Your task to perform on an android device: set default search engine in the chrome app Image 0: 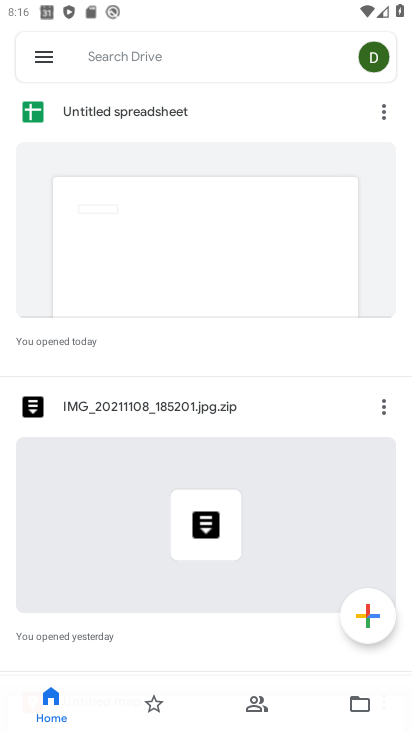
Step 0: drag from (219, 592) to (228, 326)
Your task to perform on an android device: set default search engine in the chrome app Image 1: 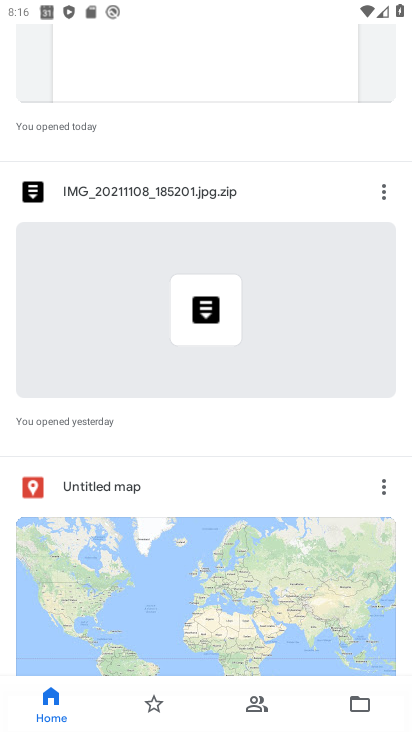
Step 1: press home button
Your task to perform on an android device: set default search engine in the chrome app Image 2: 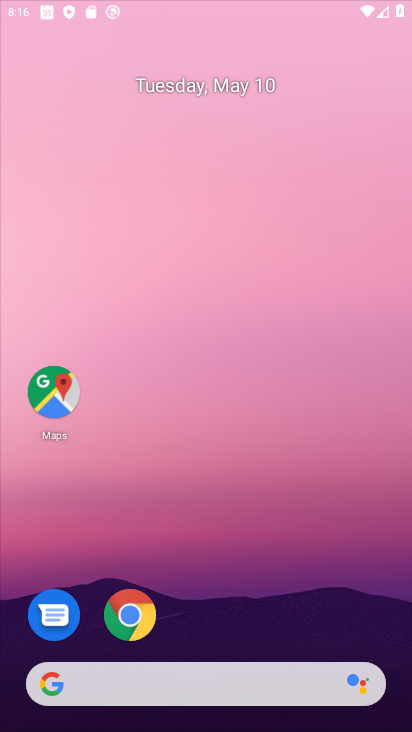
Step 2: drag from (256, 568) to (272, 310)
Your task to perform on an android device: set default search engine in the chrome app Image 3: 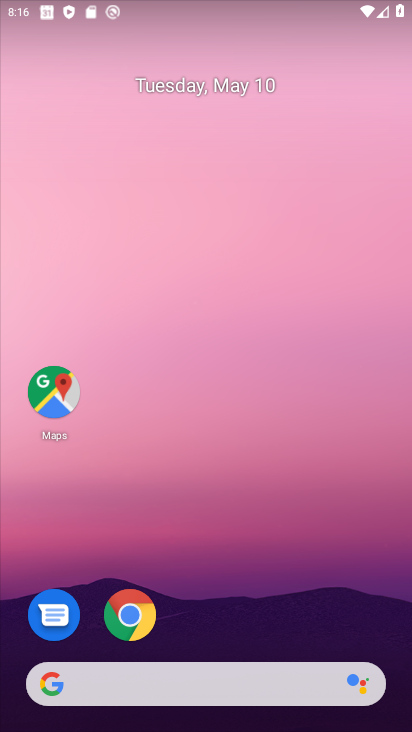
Step 3: click (125, 612)
Your task to perform on an android device: set default search engine in the chrome app Image 4: 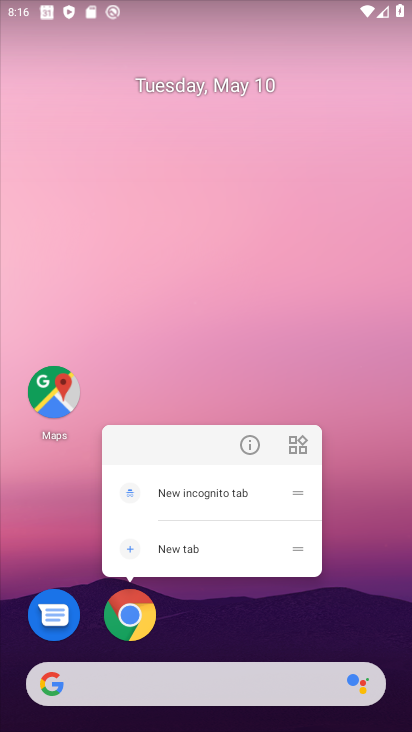
Step 4: click (253, 449)
Your task to perform on an android device: set default search engine in the chrome app Image 5: 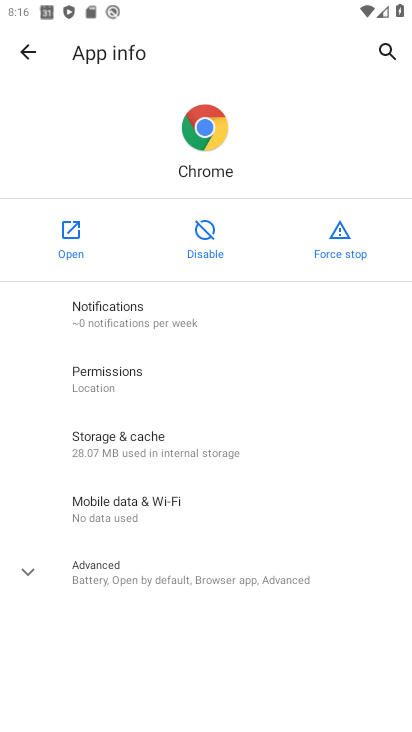
Step 5: click (77, 212)
Your task to perform on an android device: set default search engine in the chrome app Image 6: 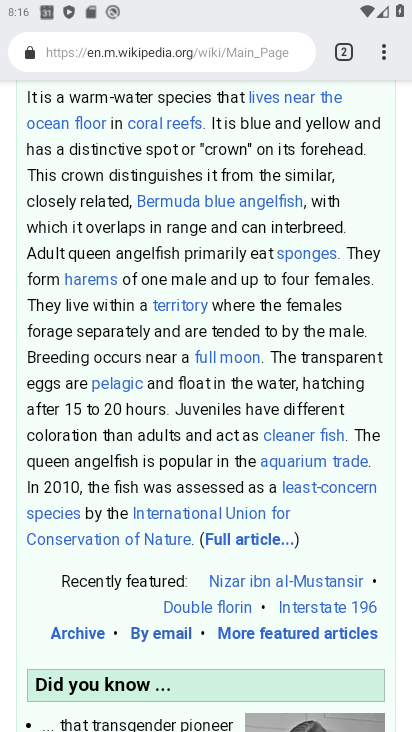
Step 6: drag from (378, 50) to (230, 622)
Your task to perform on an android device: set default search engine in the chrome app Image 7: 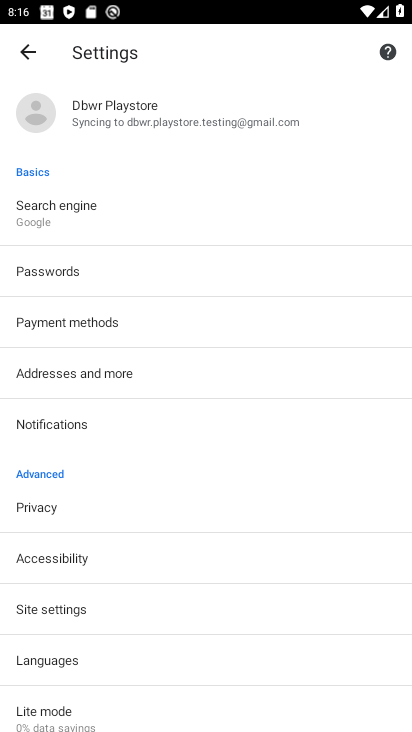
Step 7: click (69, 214)
Your task to perform on an android device: set default search engine in the chrome app Image 8: 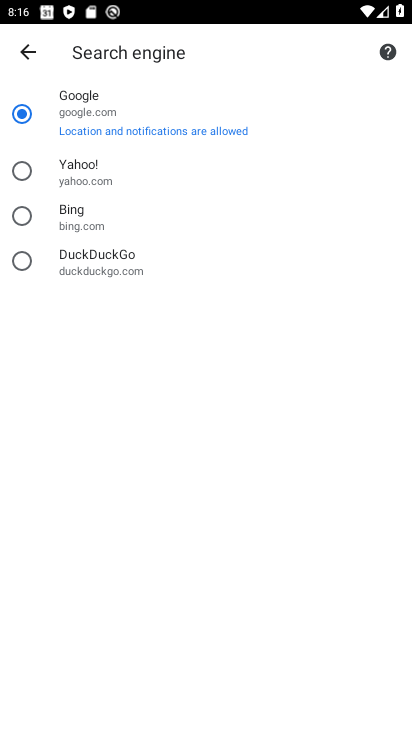
Step 8: click (79, 215)
Your task to perform on an android device: set default search engine in the chrome app Image 9: 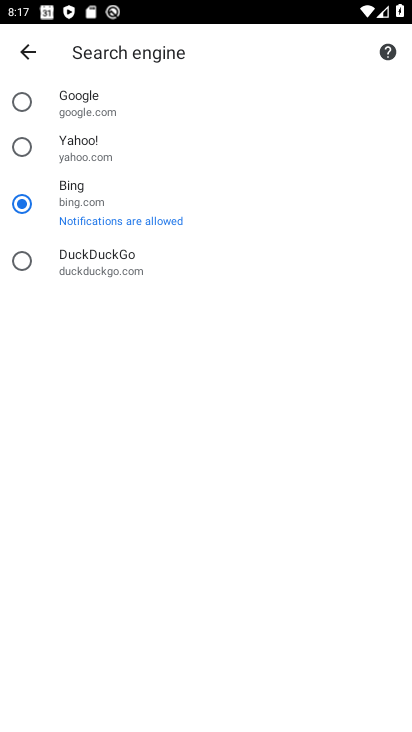
Step 9: click (62, 83)
Your task to perform on an android device: set default search engine in the chrome app Image 10: 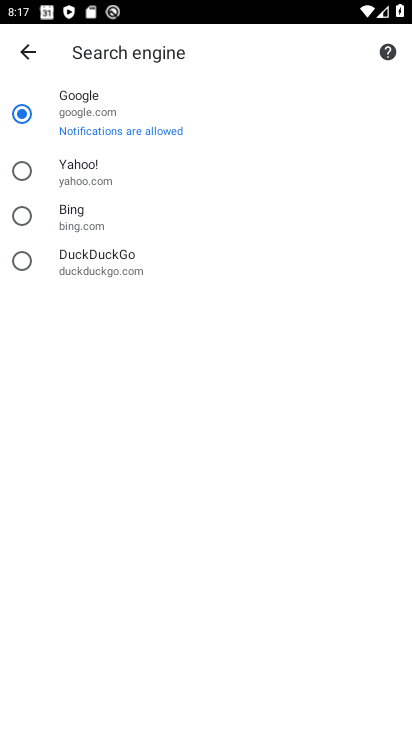
Step 10: task complete